Your task to perform on an android device: see creations saved in the google photos Image 0: 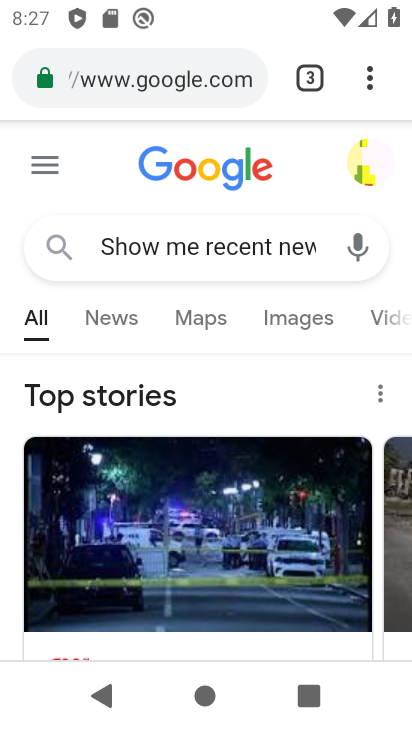
Step 0: press home button
Your task to perform on an android device: see creations saved in the google photos Image 1: 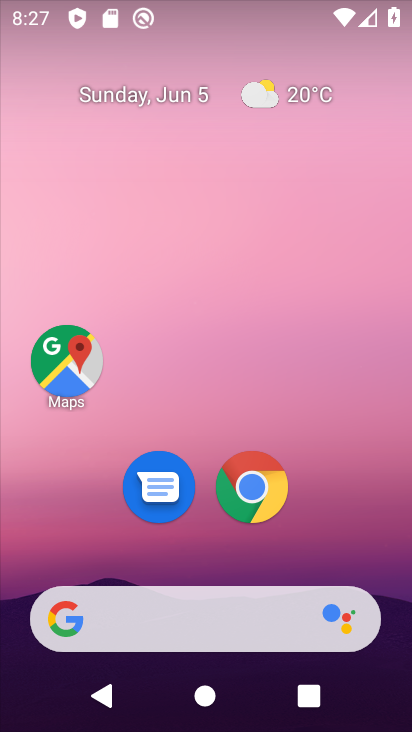
Step 1: drag from (235, 561) to (223, 250)
Your task to perform on an android device: see creations saved in the google photos Image 2: 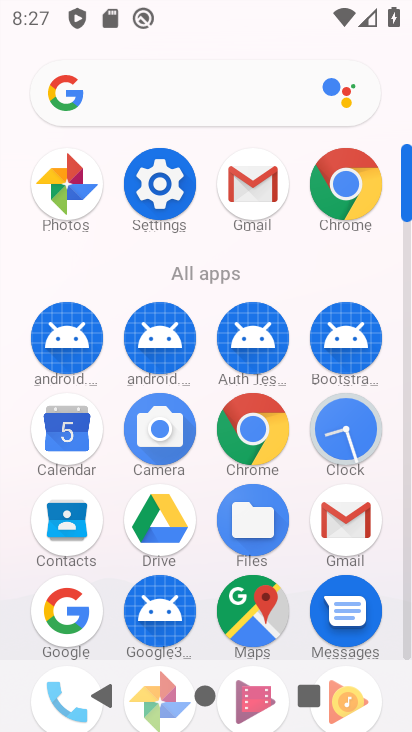
Step 2: drag from (195, 594) to (227, 305)
Your task to perform on an android device: see creations saved in the google photos Image 3: 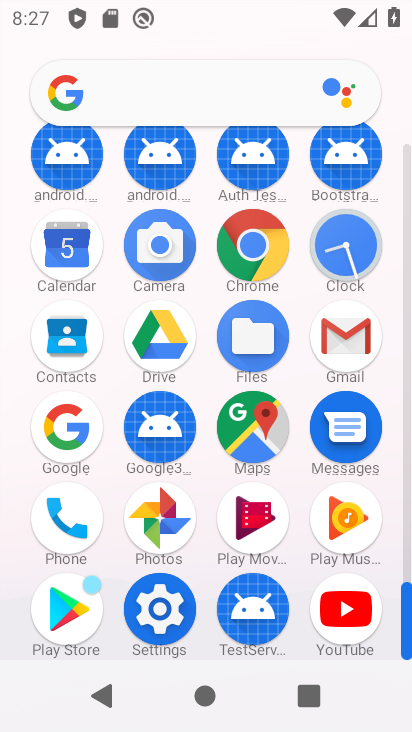
Step 3: click (146, 515)
Your task to perform on an android device: see creations saved in the google photos Image 4: 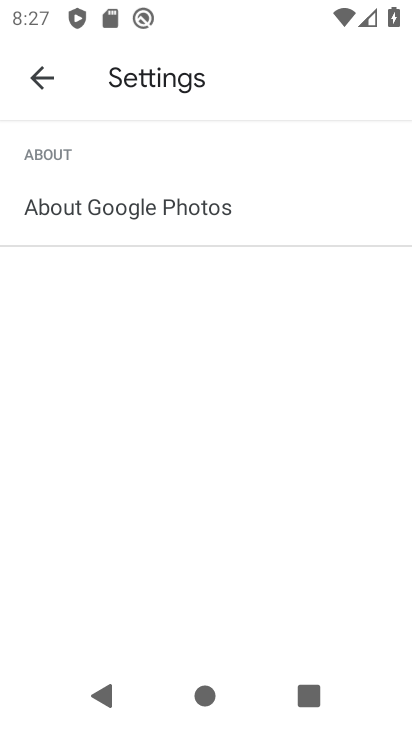
Step 4: click (37, 84)
Your task to perform on an android device: see creations saved in the google photos Image 5: 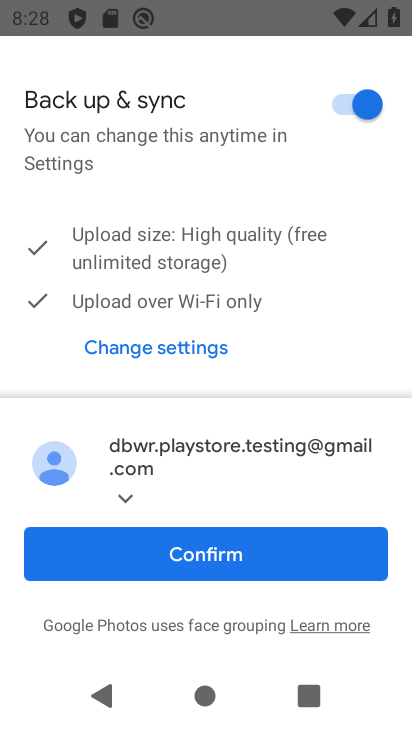
Step 5: click (191, 543)
Your task to perform on an android device: see creations saved in the google photos Image 6: 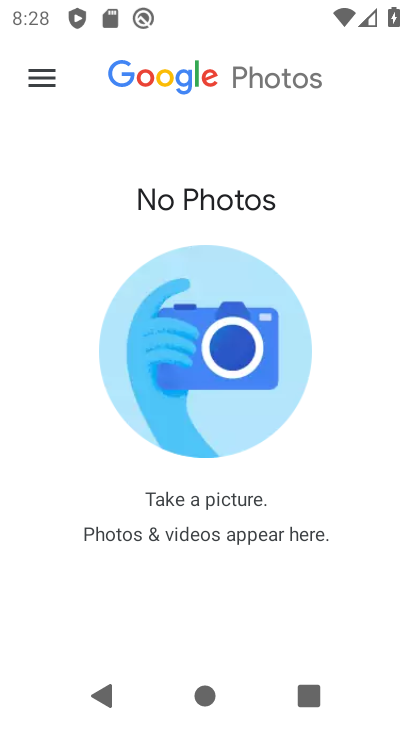
Step 6: click (191, 554)
Your task to perform on an android device: see creations saved in the google photos Image 7: 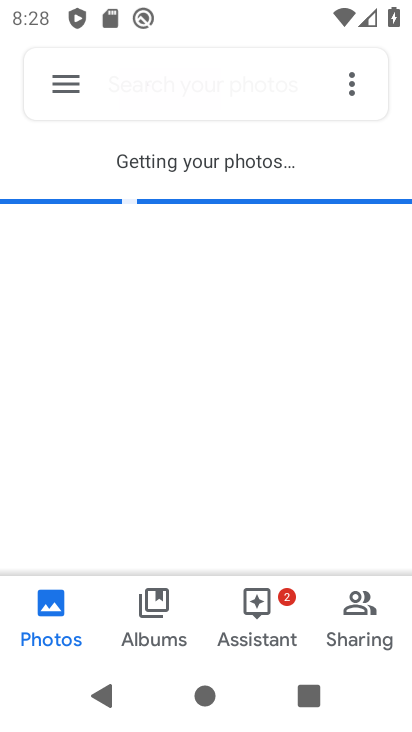
Step 7: click (163, 597)
Your task to perform on an android device: see creations saved in the google photos Image 8: 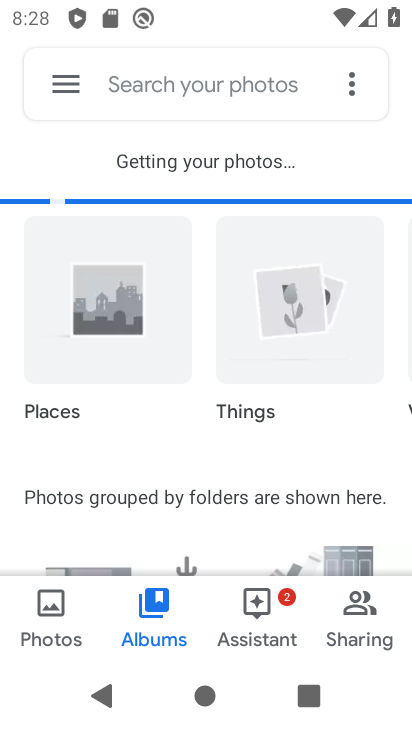
Step 8: click (47, 616)
Your task to perform on an android device: see creations saved in the google photos Image 9: 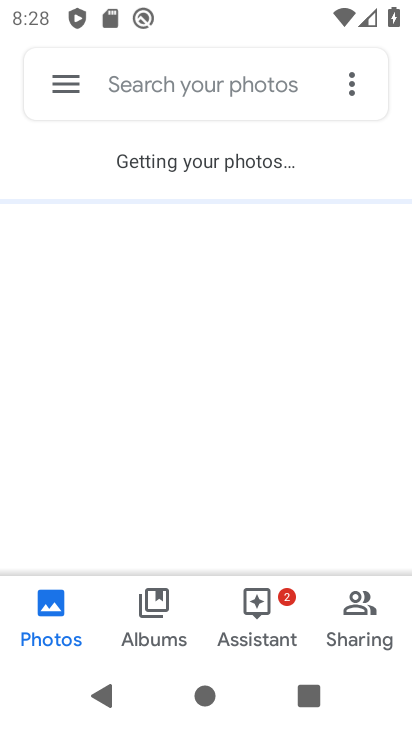
Step 9: click (158, 592)
Your task to perform on an android device: see creations saved in the google photos Image 10: 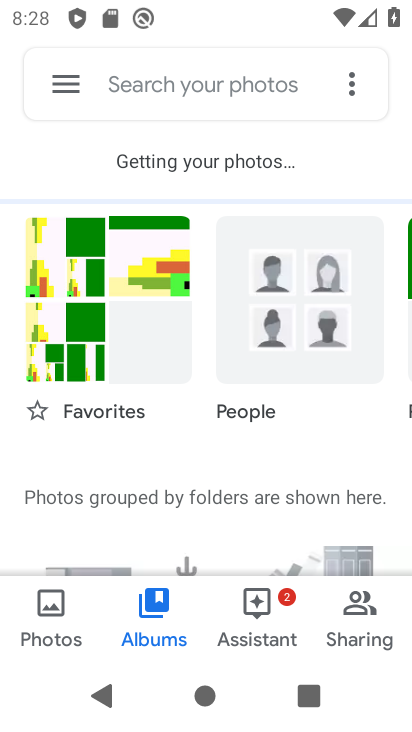
Step 10: click (34, 254)
Your task to perform on an android device: see creations saved in the google photos Image 11: 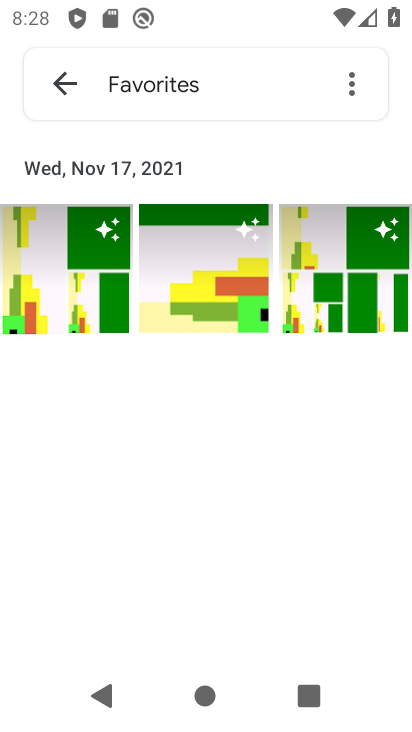
Step 11: task complete